Your task to perform on an android device: turn off location Image 0: 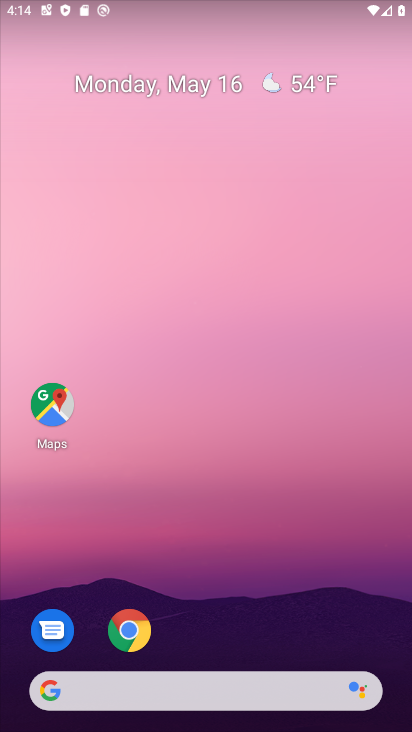
Step 0: drag from (245, 626) to (265, 101)
Your task to perform on an android device: turn off location Image 1: 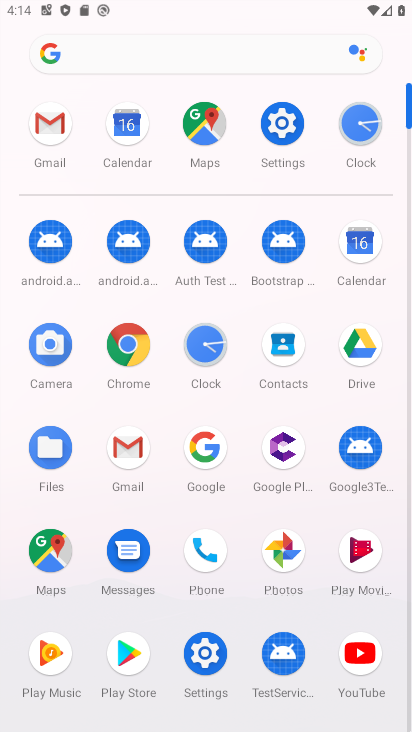
Step 1: click (285, 129)
Your task to perform on an android device: turn off location Image 2: 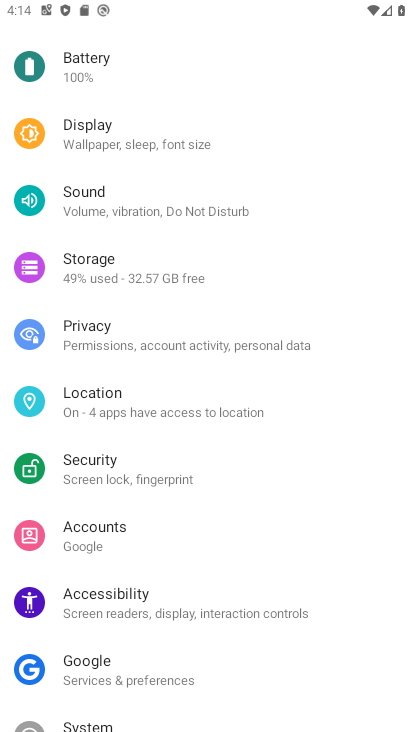
Step 2: click (188, 414)
Your task to perform on an android device: turn off location Image 3: 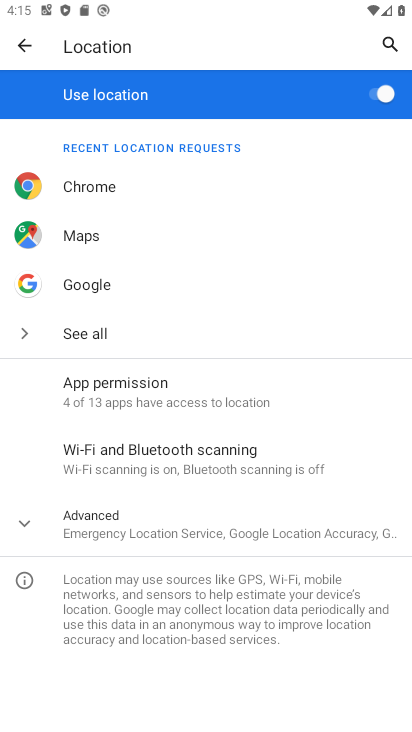
Step 3: click (375, 86)
Your task to perform on an android device: turn off location Image 4: 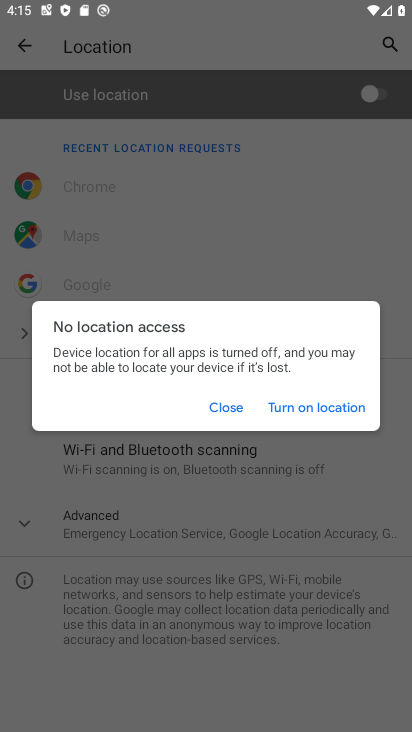
Step 4: task complete